Your task to perform on an android device: Search for acer nitro on target, select the first entry, and add it to the cart. Image 0: 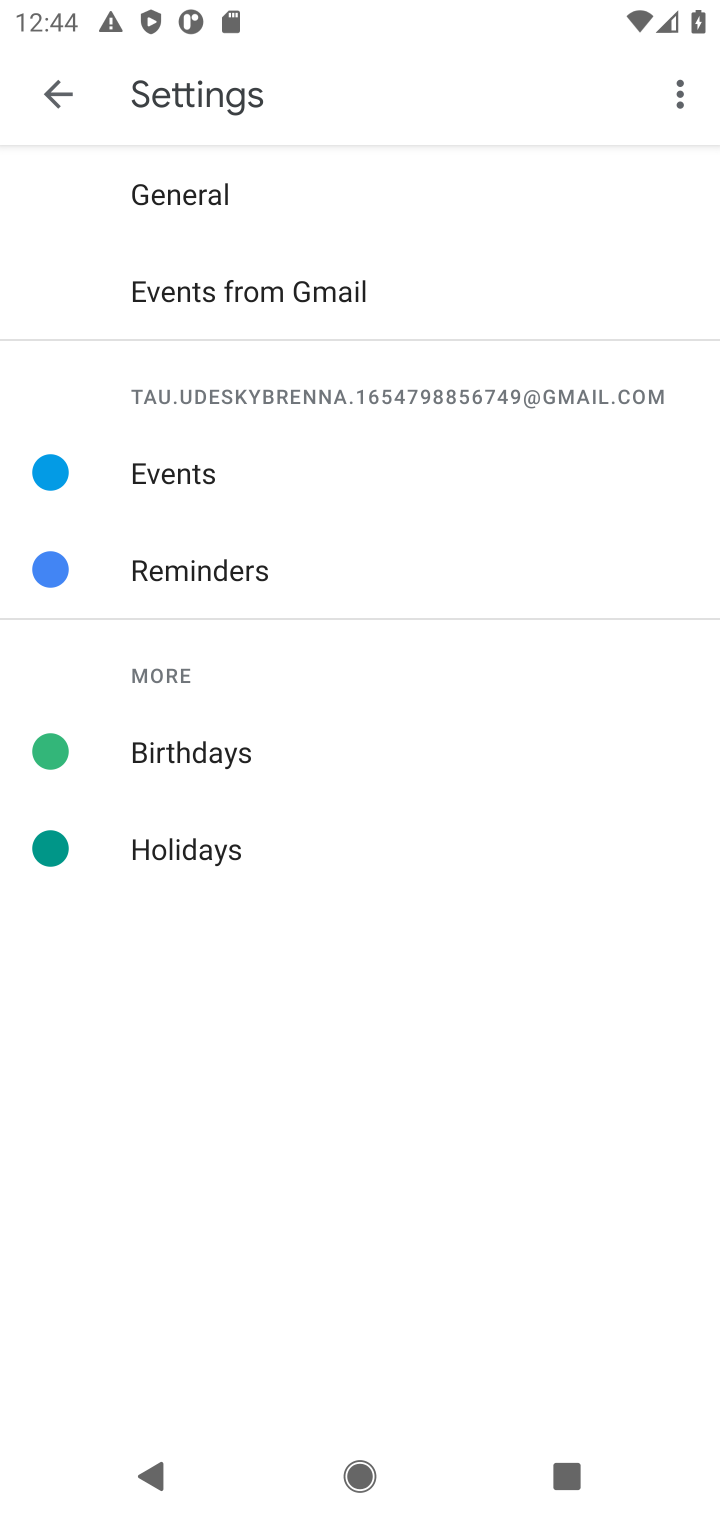
Step 0: task complete